Your task to perform on an android device: change notifications settings Image 0: 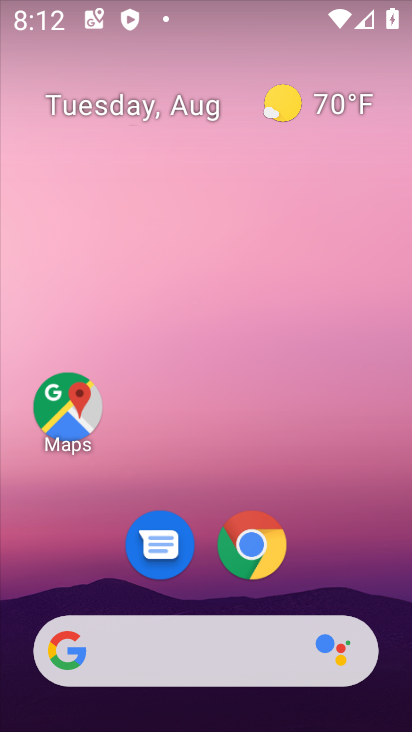
Step 0: drag from (196, 599) to (262, 125)
Your task to perform on an android device: change notifications settings Image 1: 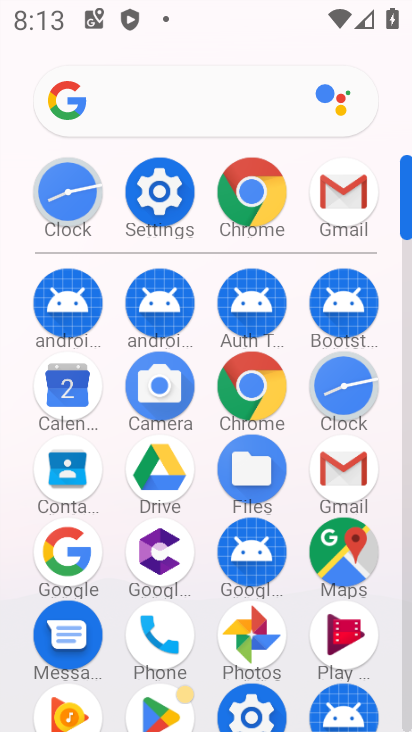
Step 1: click (166, 205)
Your task to perform on an android device: change notifications settings Image 2: 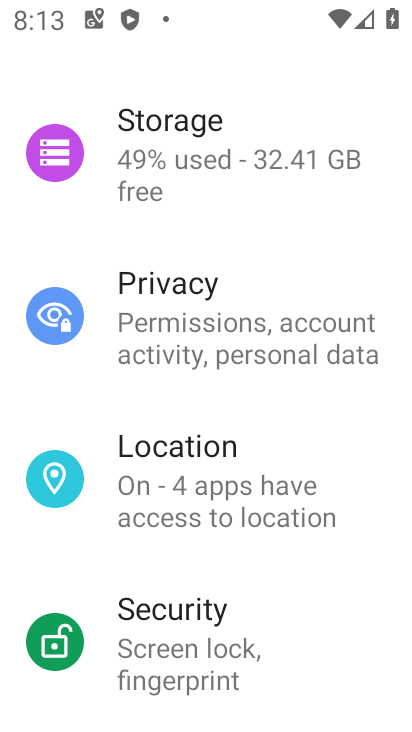
Step 2: drag from (184, 323) to (159, 614)
Your task to perform on an android device: change notifications settings Image 3: 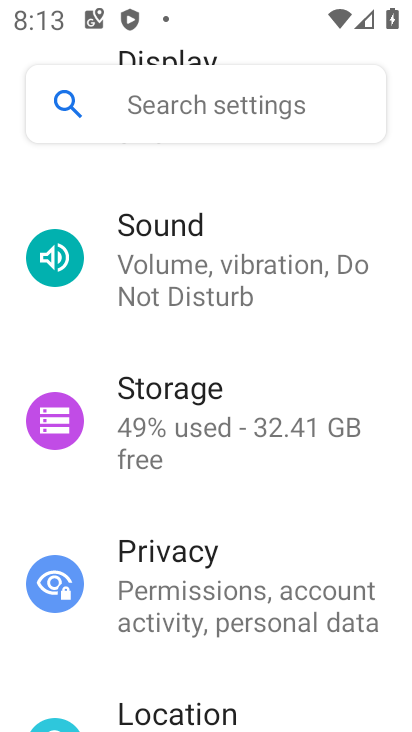
Step 3: drag from (169, 348) to (158, 556)
Your task to perform on an android device: change notifications settings Image 4: 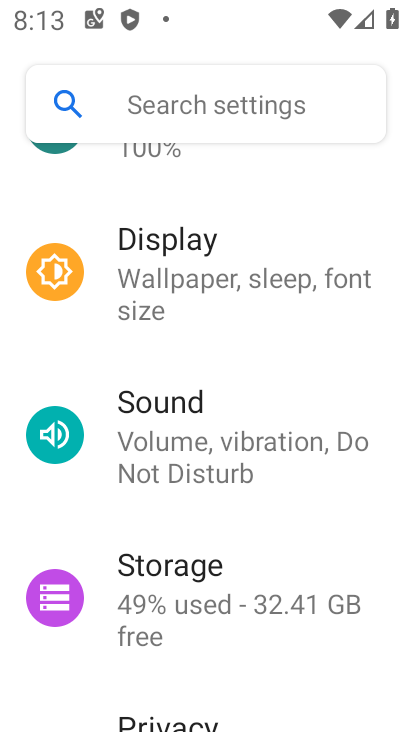
Step 4: drag from (166, 322) to (134, 586)
Your task to perform on an android device: change notifications settings Image 5: 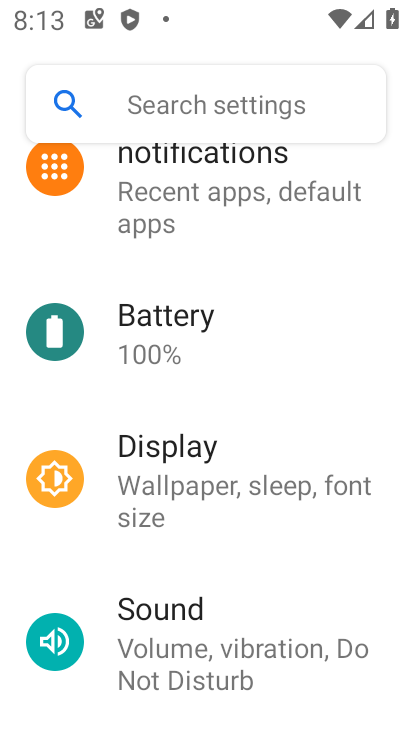
Step 5: click (183, 224)
Your task to perform on an android device: change notifications settings Image 6: 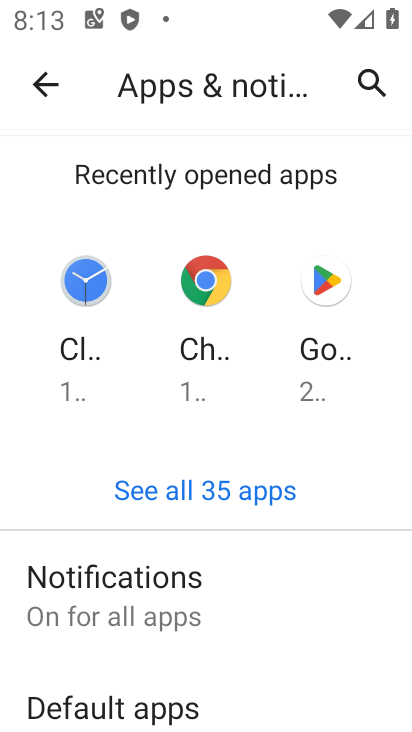
Step 6: click (90, 602)
Your task to perform on an android device: change notifications settings Image 7: 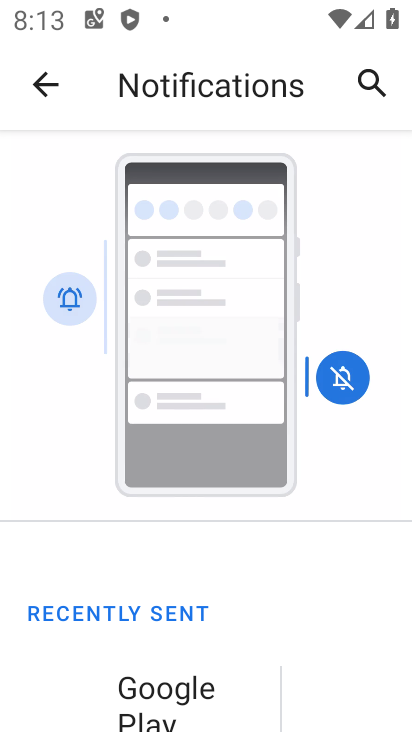
Step 7: drag from (170, 594) to (232, 211)
Your task to perform on an android device: change notifications settings Image 8: 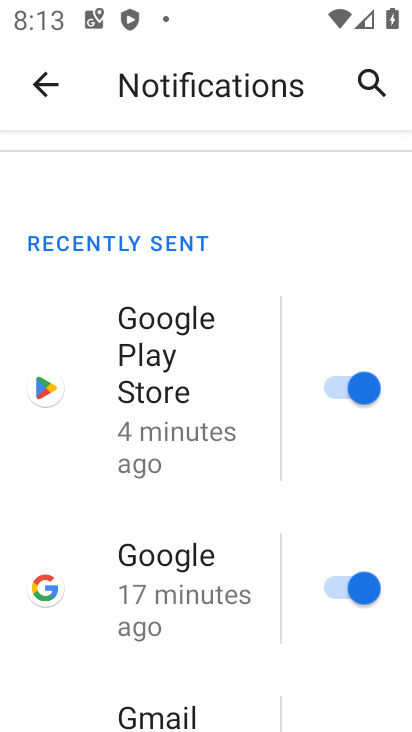
Step 8: click (326, 378)
Your task to perform on an android device: change notifications settings Image 9: 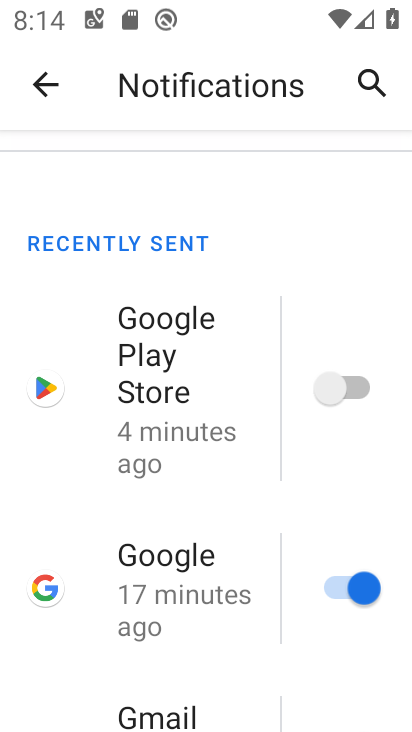
Step 9: task complete